Your task to perform on an android device: empty trash in the gmail app Image 0: 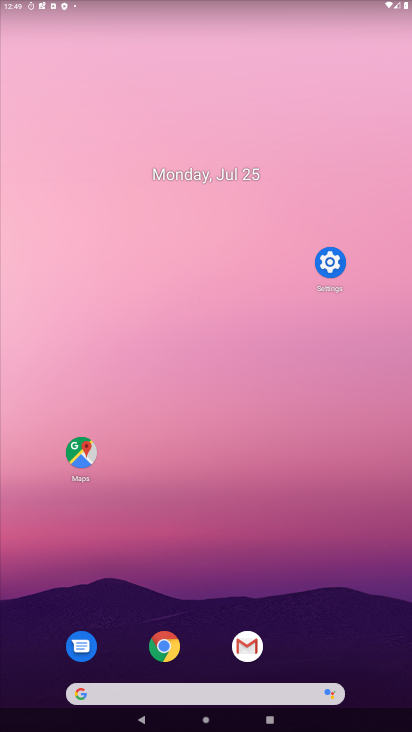
Step 0: click (315, 254)
Your task to perform on an android device: empty trash in the gmail app Image 1: 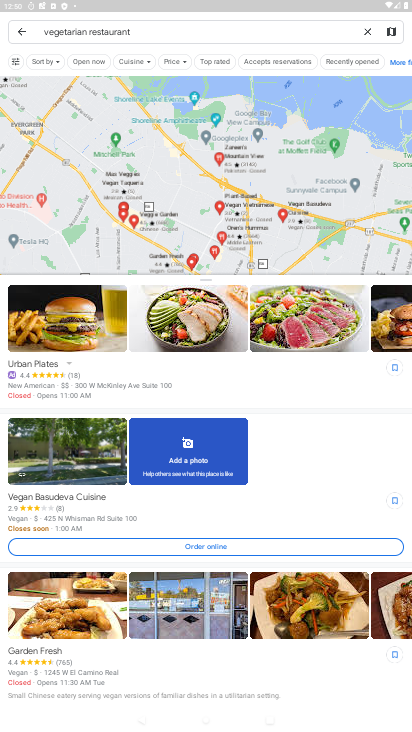
Step 1: press home button
Your task to perform on an android device: empty trash in the gmail app Image 2: 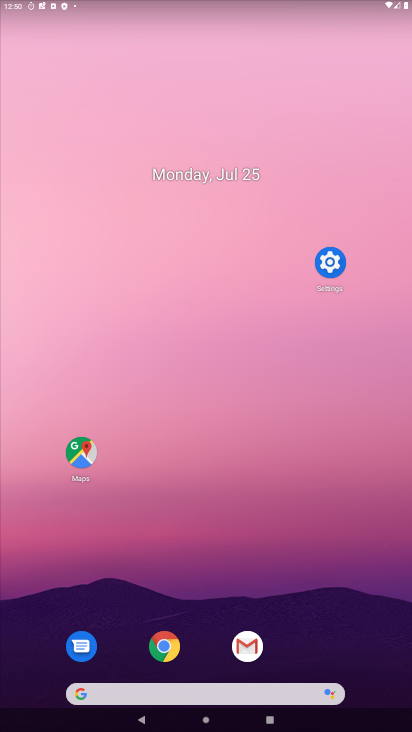
Step 2: drag from (219, 702) to (328, 81)
Your task to perform on an android device: empty trash in the gmail app Image 3: 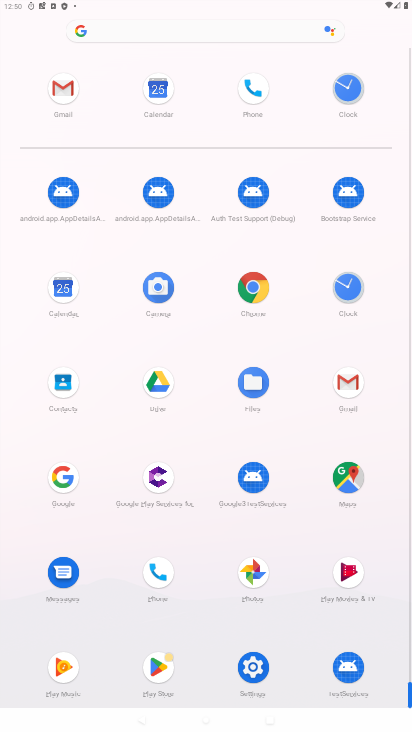
Step 3: click (344, 388)
Your task to perform on an android device: empty trash in the gmail app Image 4: 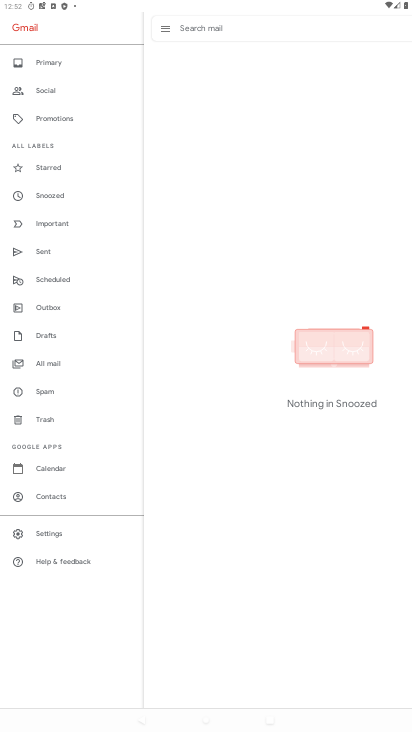
Step 4: click (35, 426)
Your task to perform on an android device: empty trash in the gmail app Image 5: 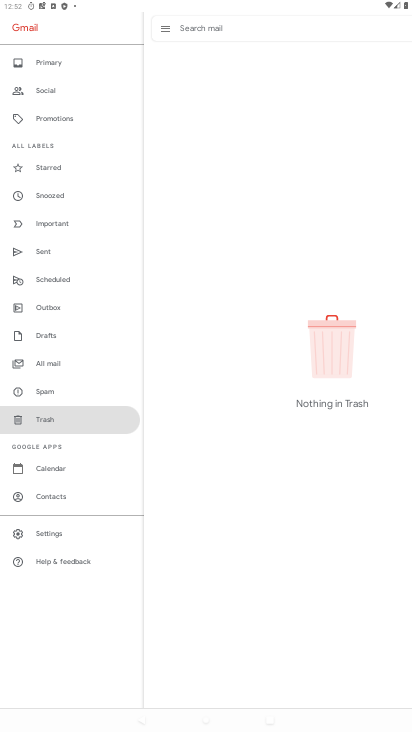
Step 5: task complete